Your task to perform on an android device: toggle show notifications on the lock screen Image 0: 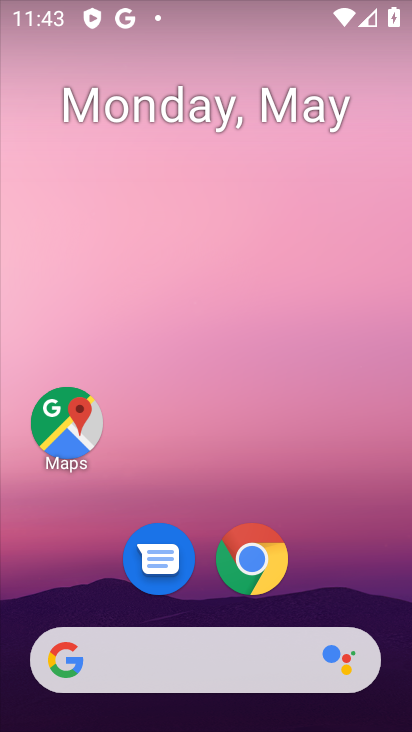
Step 0: drag from (343, 574) to (273, 24)
Your task to perform on an android device: toggle show notifications on the lock screen Image 1: 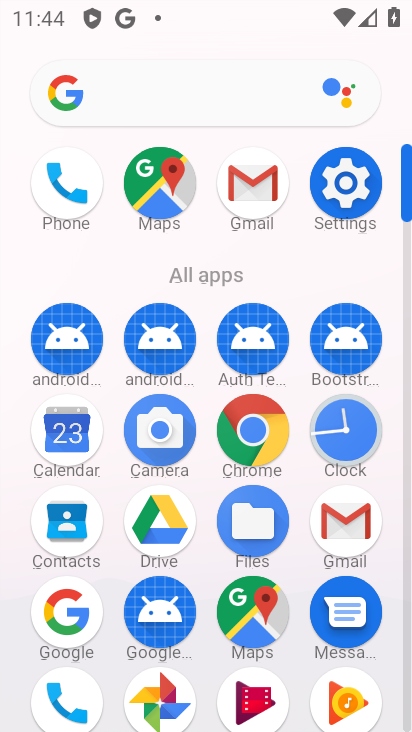
Step 1: click (346, 158)
Your task to perform on an android device: toggle show notifications on the lock screen Image 2: 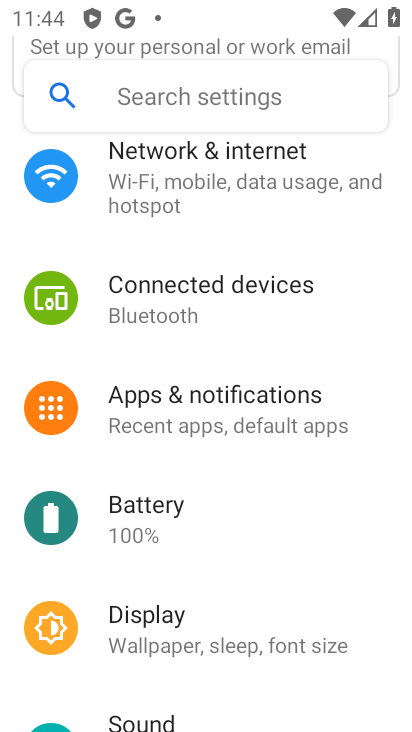
Step 2: drag from (261, 583) to (277, 273)
Your task to perform on an android device: toggle show notifications on the lock screen Image 3: 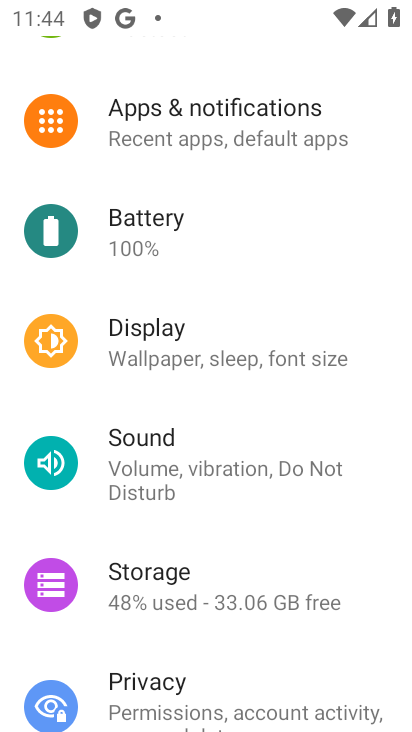
Step 3: click (224, 244)
Your task to perform on an android device: toggle show notifications on the lock screen Image 4: 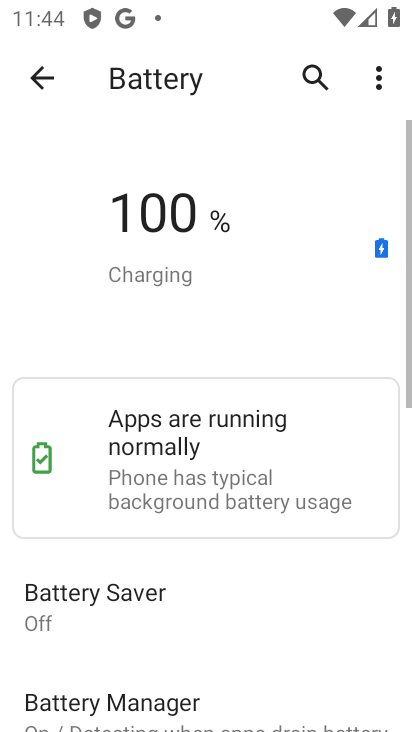
Step 4: click (38, 83)
Your task to perform on an android device: toggle show notifications on the lock screen Image 5: 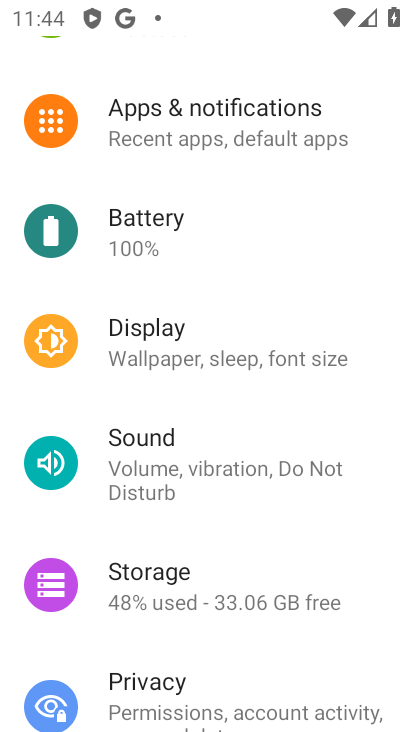
Step 5: click (225, 147)
Your task to perform on an android device: toggle show notifications on the lock screen Image 6: 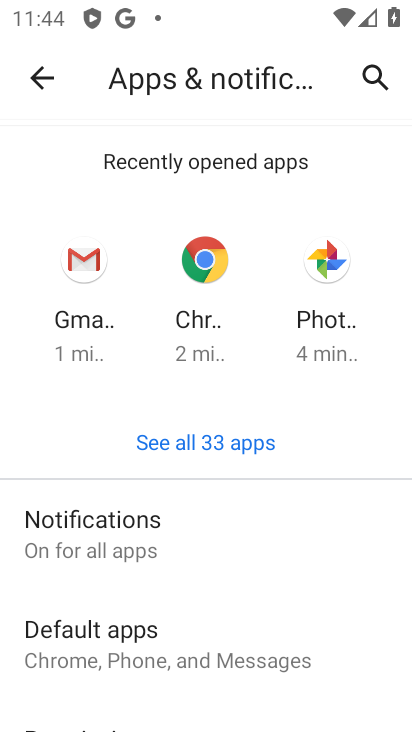
Step 6: click (184, 575)
Your task to perform on an android device: toggle show notifications on the lock screen Image 7: 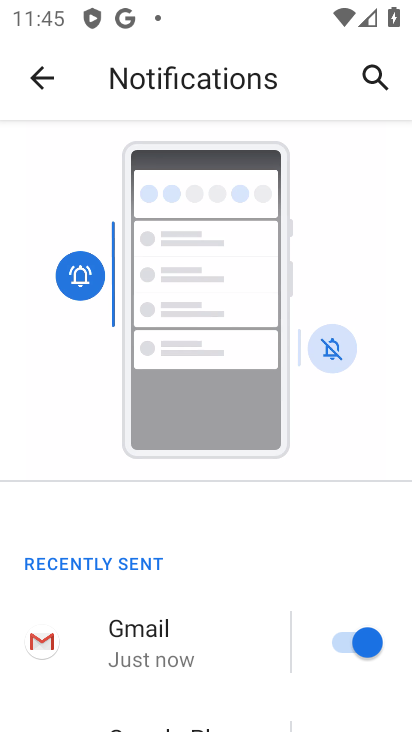
Step 7: drag from (186, 703) to (174, 60)
Your task to perform on an android device: toggle show notifications on the lock screen Image 8: 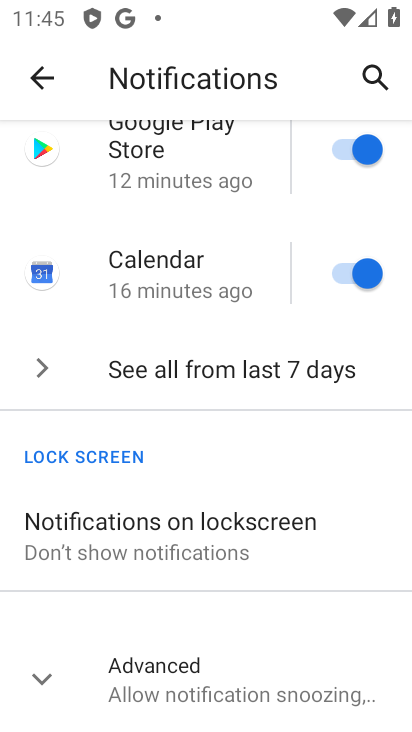
Step 8: drag from (203, 627) to (187, 90)
Your task to perform on an android device: toggle show notifications on the lock screen Image 9: 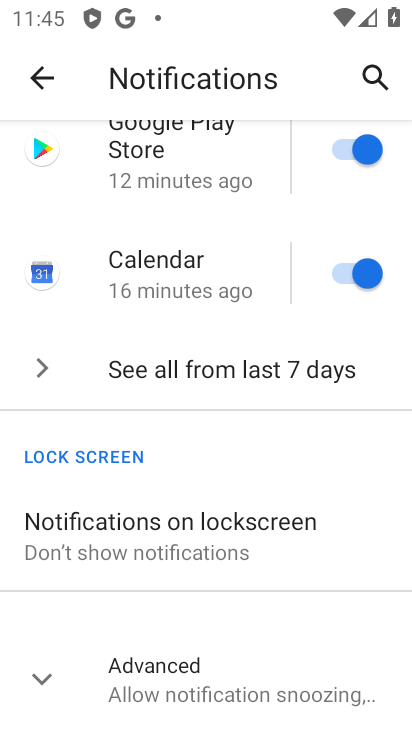
Step 9: drag from (216, 574) to (221, 277)
Your task to perform on an android device: toggle show notifications on the lock screen Image 10: 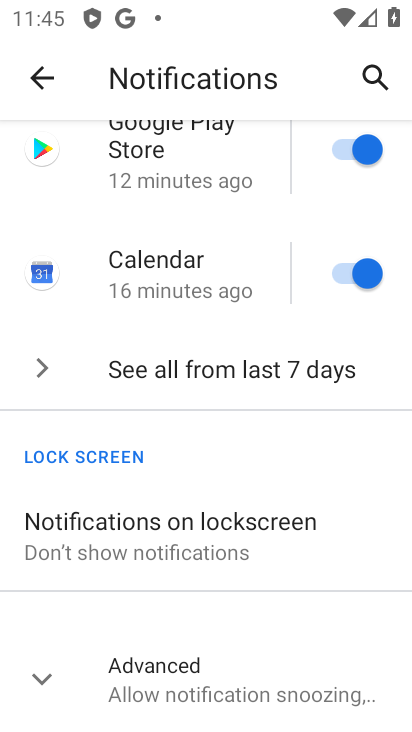
Step 10: click (215, 528)
Your task to perform on an android device: toggle show notifications on the lock screen Image 11: 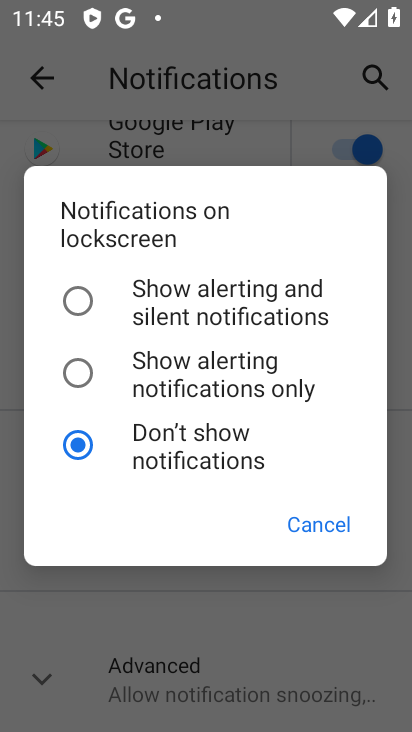
Step 11: click (206, 329)
Your task to perform on an android device: toggle show notifications on the lock screen Image 12: 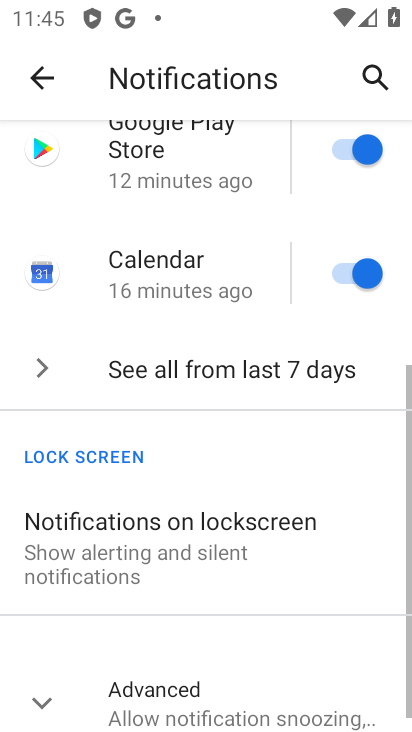
Step 12: task complete